Your task to perform on an android device: open sync settings in chrome Image 0: 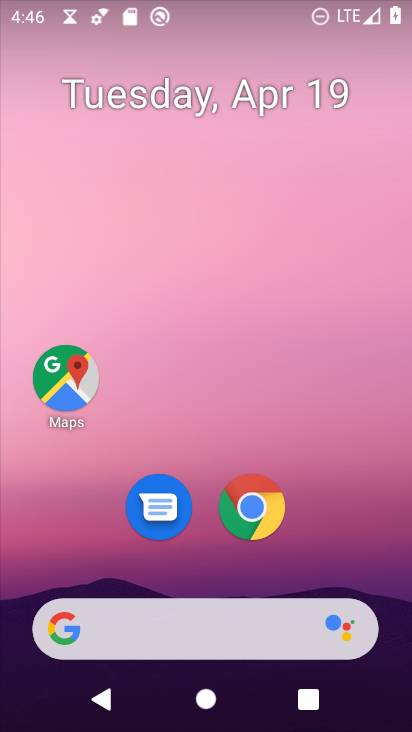
Step 0: click (248, 523)
Your task to perform on an android device: open sync settings in chrome Image 1: 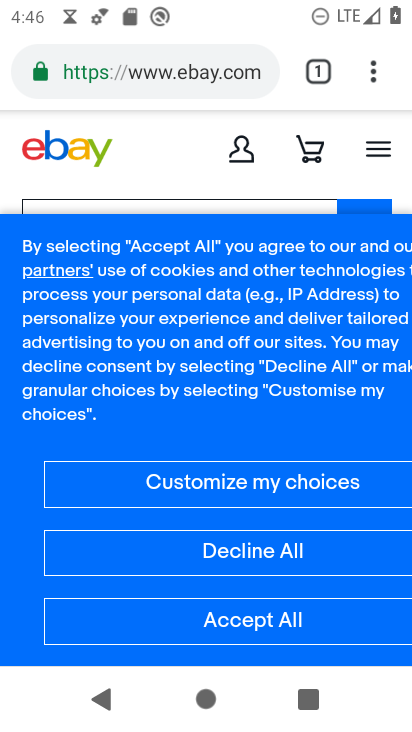
Step 1: click (366, 74)
Your task to perform on an android device: open sync settings in chrome Image 2: 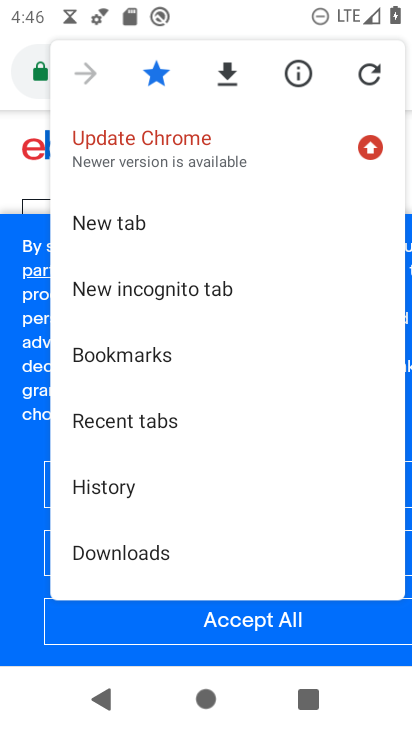
Step 2: drag from (267, 292) to (259, 224)
Your task to perform on an android device: open sync settings in chrome Image 3: 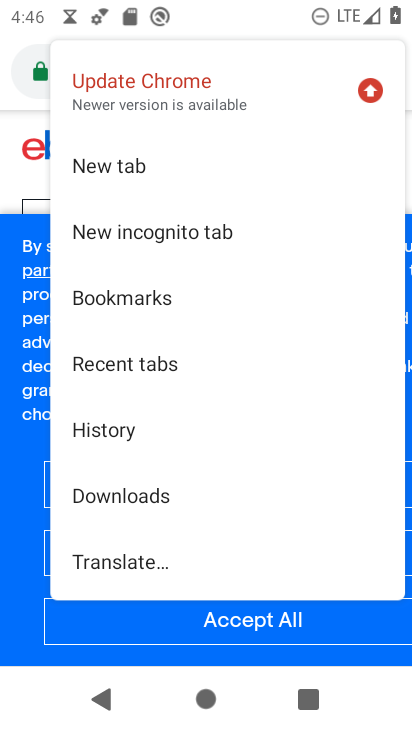
Step 3: drag from (254, 285) to (250, 213)
Your task to perform on an android device: open sync settings in chrome Image 4: 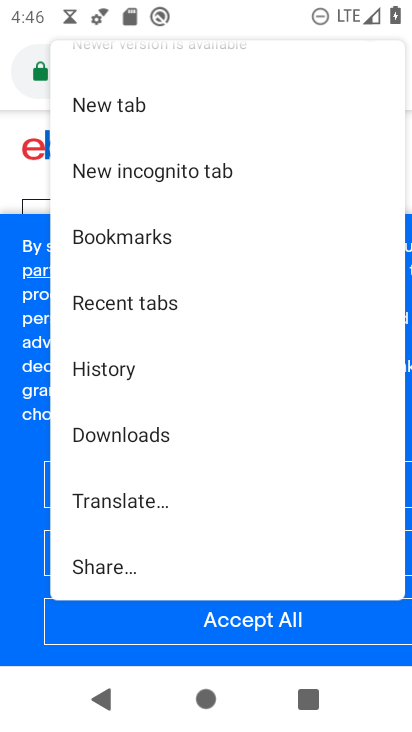
Step 4: drag from (252, 368) to (238, 284)
Your task to perform on an android device: open sync settings in chrome Image 5: 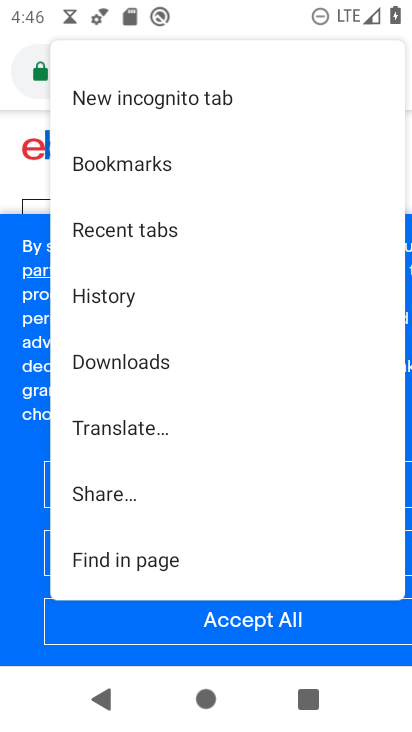
Step 5: drag from (215, 443) to (220, 373)
Your task to perform on an android device: open sync settings in chrome Image 6: 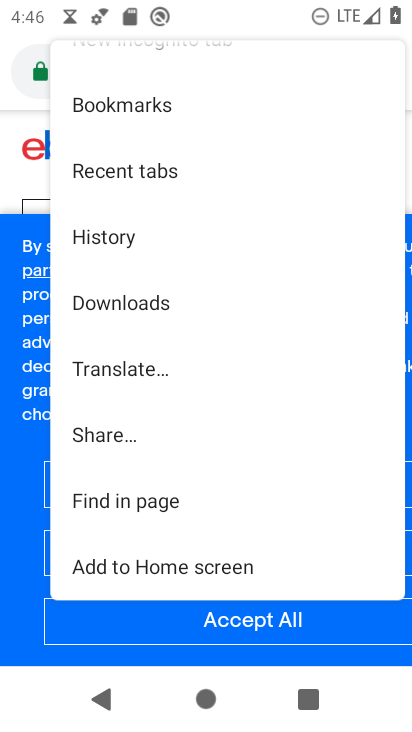
Step 6: drag from (155, 494) to (131, 412)
Your task to perform on an android device: open sync settings in chrome Image 7: 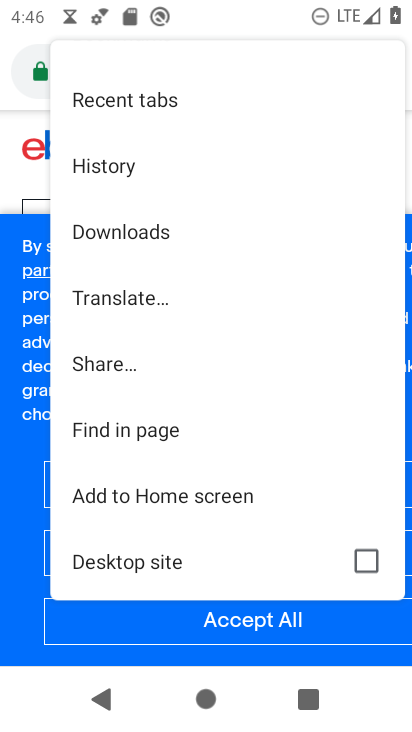
Step 7: drag from (179, 536) to (185, 469)
Your task to perform on an android device: open sync settings in chrome Image 8: 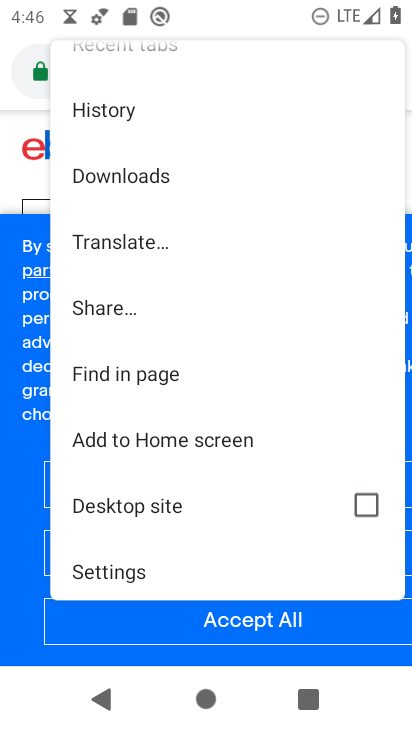
Step 8: click (191, 562)
Your task to perform on an android device: open sync settings in chrome Image 9: 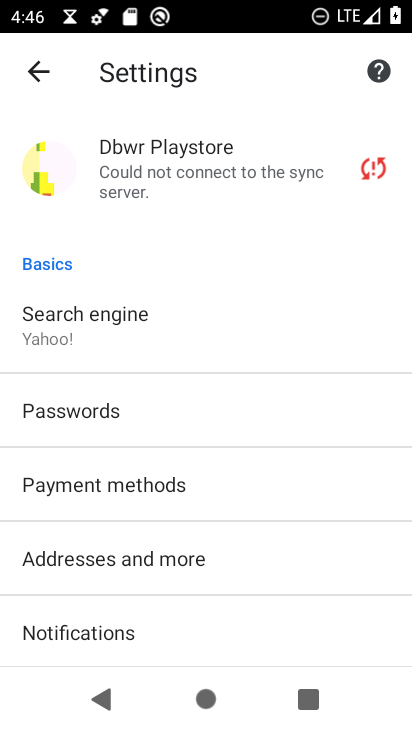
Step 9: click (260, 159)
Your task to perform on an android device: open sync settings in chrome Image 10: 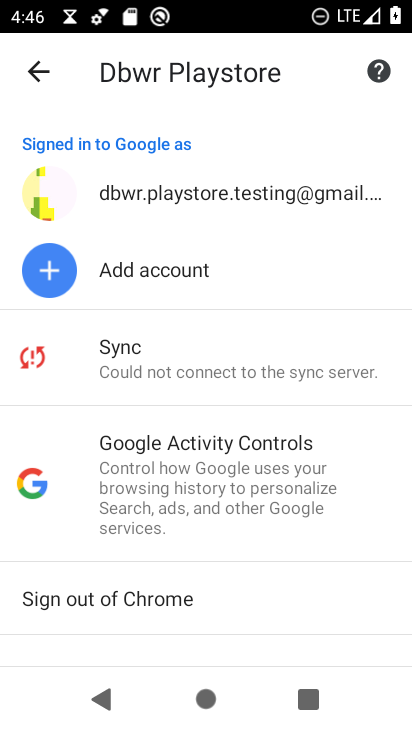
Step 10: click (206, 362)
Your task to perform on an android device: open sync settings in chrome Image 11: 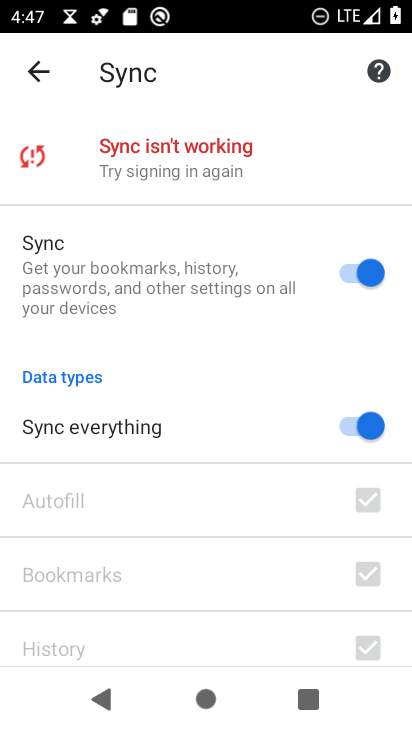
Step 11: task complete